Your task to perform on an android device: What's on my calendar today? Image 0: 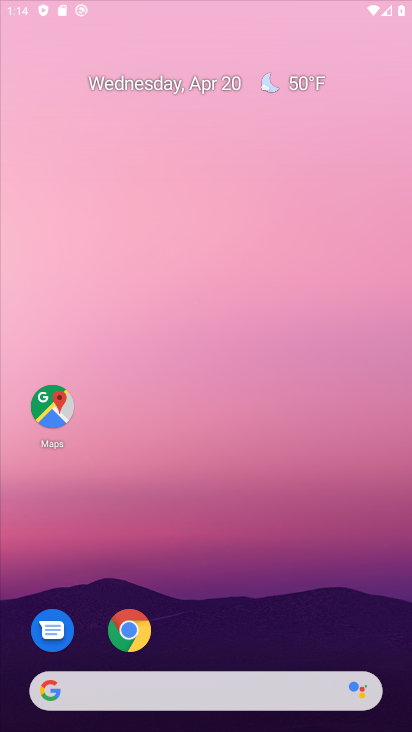
Step 0: drag from (266, 591) to (261, 106)
Your task to perform on an android device: What's on my calendar today? Image 1: 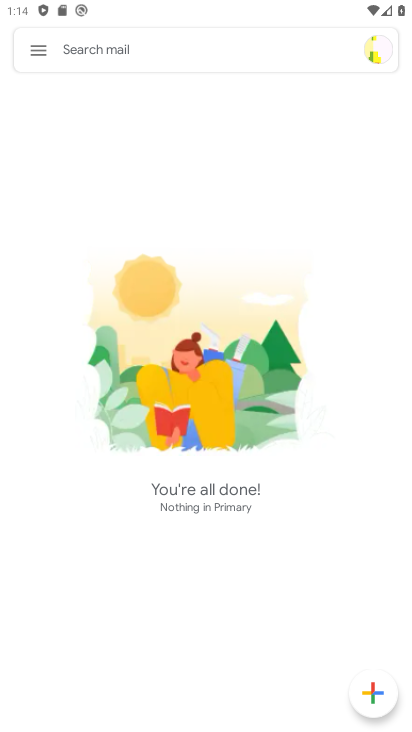
Step 1: press home button
Your task to perform on an android device: What's on my calendar today? Image 2: 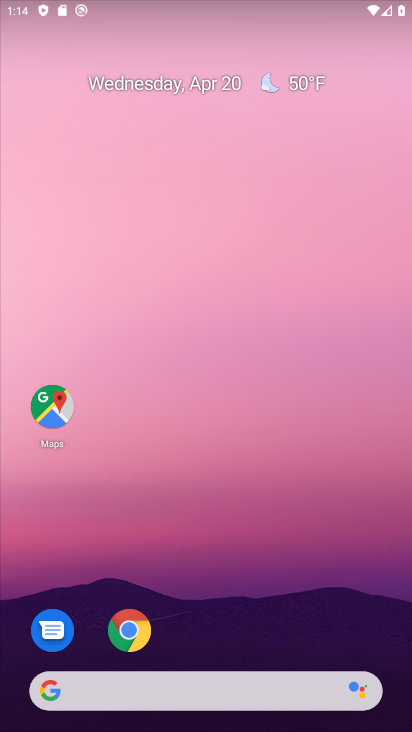
Step 2: drag from (215, 475) to (241, 127)
Your task to perform on an android device: What's on my calendar today? Image 3: 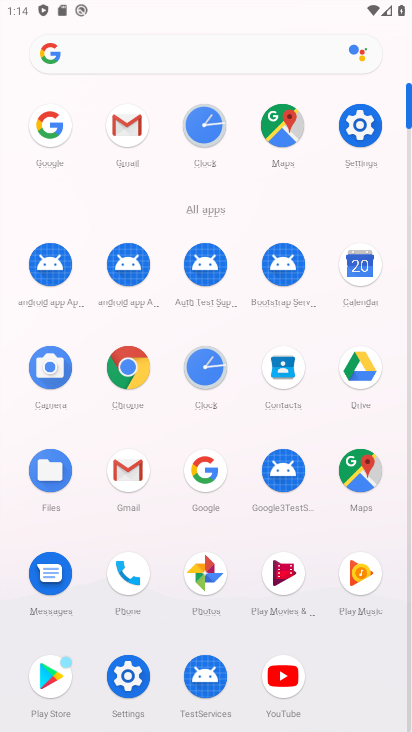
Step 3: click (360, 266)
Your task to perform on an android device: What's on my calendar today? Image 4: 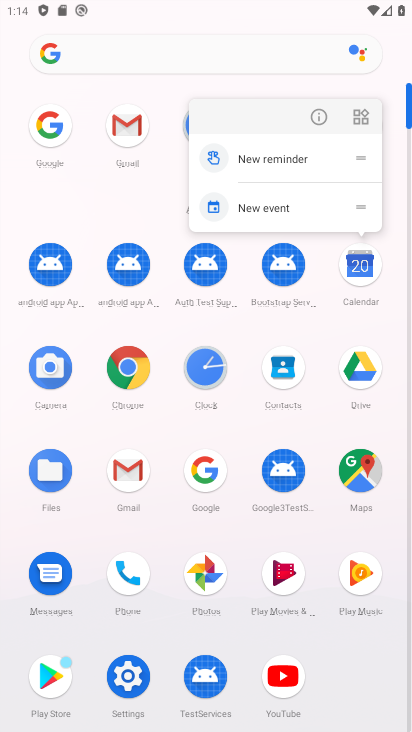
Step 4: click (360, 266)
Your task to perform on an android device: What's on my calendar today? Image 5: 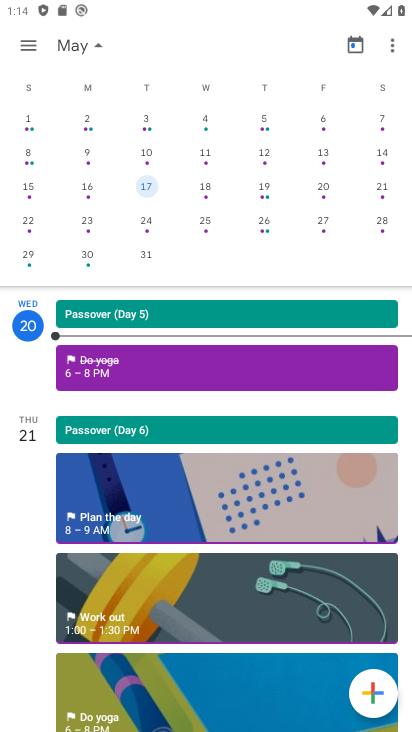
Step 5: click (92, 43)
Your task to perform on an android device: What's on my calendar today? Image 6: 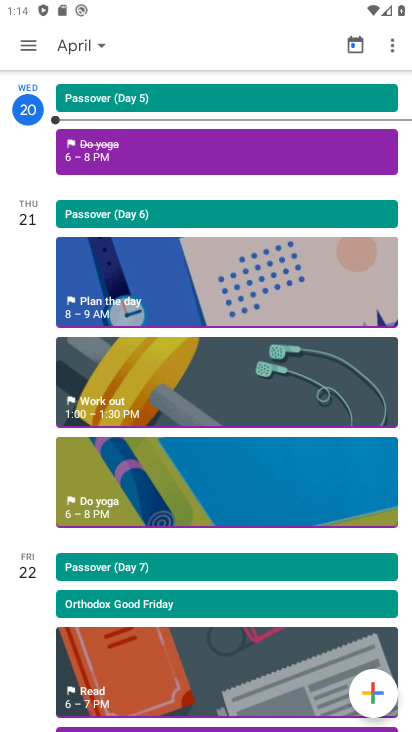
Step 6: click (92, 43)
Your task to perform on an android device: What's on my calendar today? Image 7: 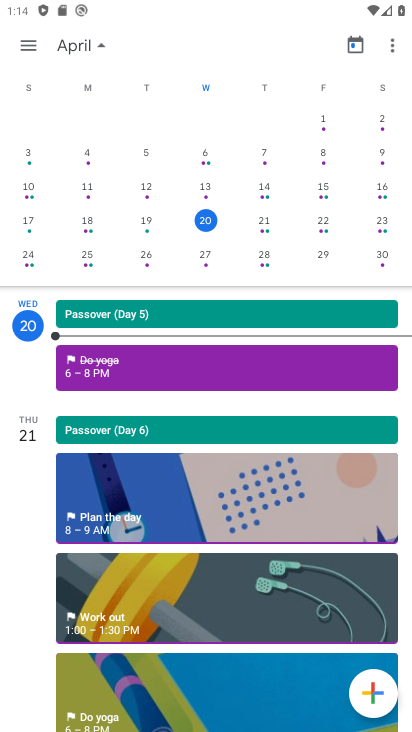
Step 7: click (208, 218)
Your task to perform on an android device: What's on my calendar today? Image 8: 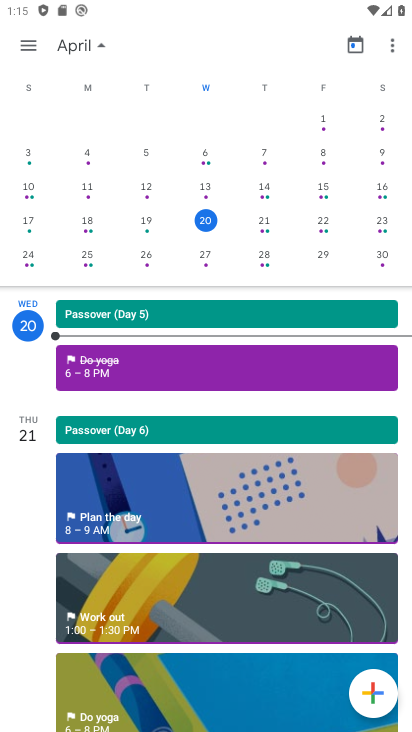
Step 8: task complete